Your task to perform on an android device: View the shopping cart on target.com. Add usb-c to the cart on target.com Image 0: 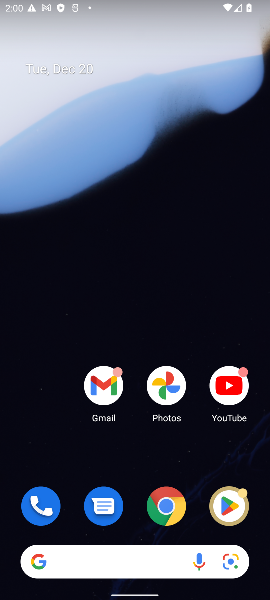
Step 0: click (161, 513)
Your task to perform on an android device: View the shopping cart on target.com. Add usb-c to the cart on target.com Image 1: 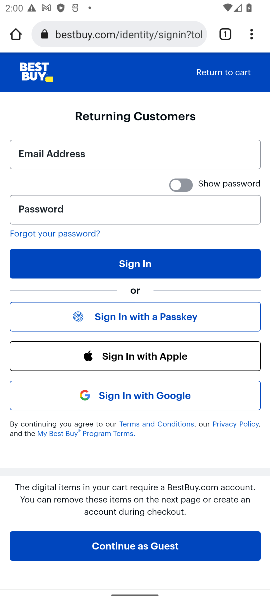
Step 1: click (113, 32)
Your task to perform on an android device: View the shopping cart on target.com. Add usb-c to the cart on target.com Image 2: 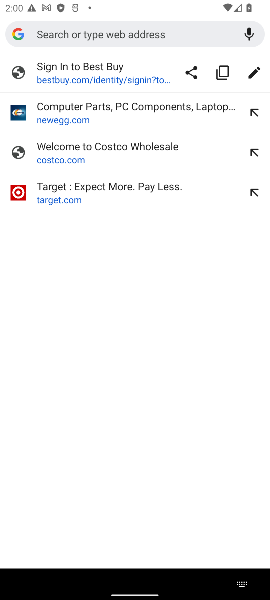
Step 2: click (122, 190)
Your task to perform on an android device: View the shopping cart on target.com. Add usb-c to the cart on target.com Image 3: 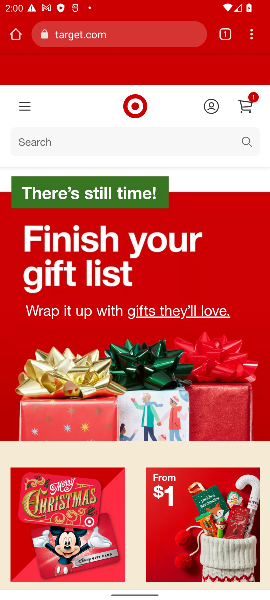
Step 3: click (175, 135)
Your task to perform on an android device: View the shopping cart on target.com. Add usb-c to the cart on target.com Image 4: 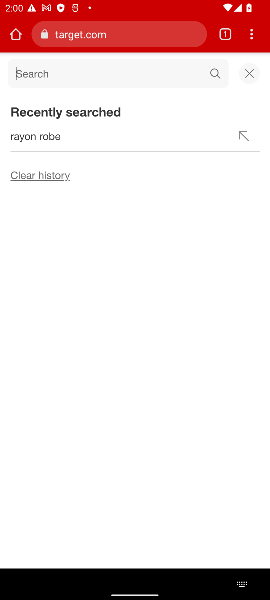
Step 4: type "USB-C"
Your task to perform on an android device: View the shopping cart on target.com. Add usb-c to the cart on target.com Image 5: 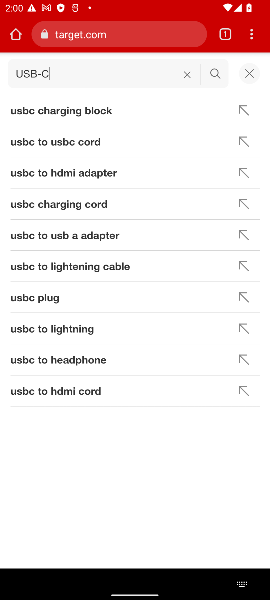
Step 5: click (98, 111)
Your task to perform on an android device: View the shopping cart on target.com. Add usb-c to the cart on target.com Image 6: 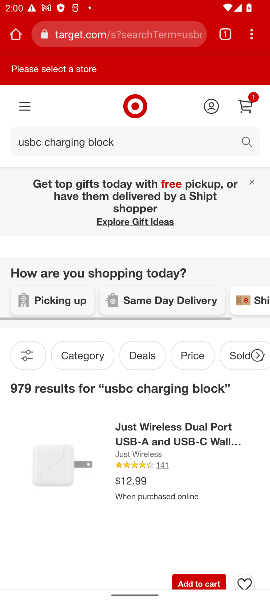
Step 6: click (195, 581)
Your task to perform on an android device: View the shopping cart on target.com. Add usb-c to the cart on target.com Image 7: 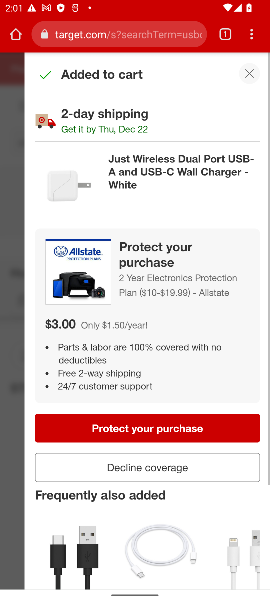
Step 7: click (141, 467)
Your task to perform on an android device: View the shopping cart on target.com. Add usb-c to the cart on target.com Image 8: 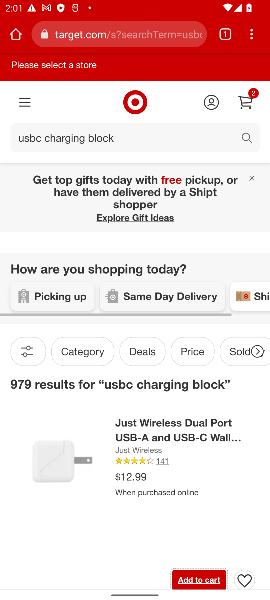
Step 8: task complete